Your task to perform on an android device: Search for "bose quietcomfort 35" on ebay, select the first entry, add it to the cart, then select checkout. Image 0: 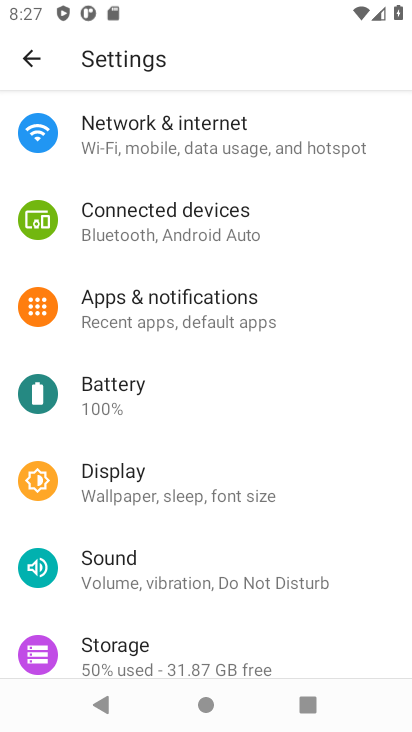
Step 0: press home button
Your task to perform on an android device: Search for "bose quietcomfort 35" on ebay, select the first entry, add it to the cart, then select checkout. Image 1: 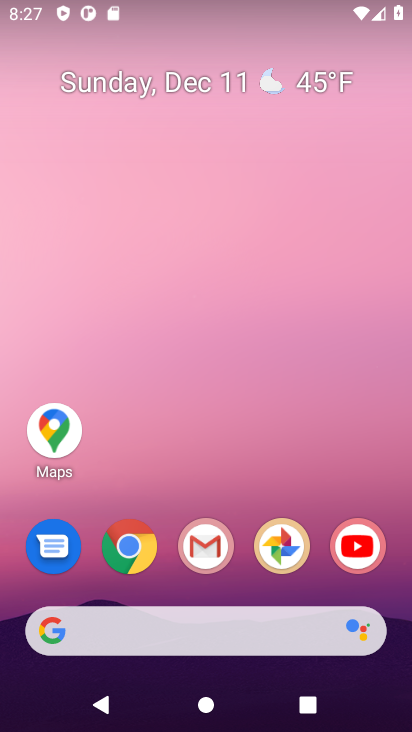
Step 1: click (134, 547)
Your task to perform on an android device: Search for "bose quietcomfort 35" on ebay, select the first entry, add it to the cart, then select checkout. Image 2: 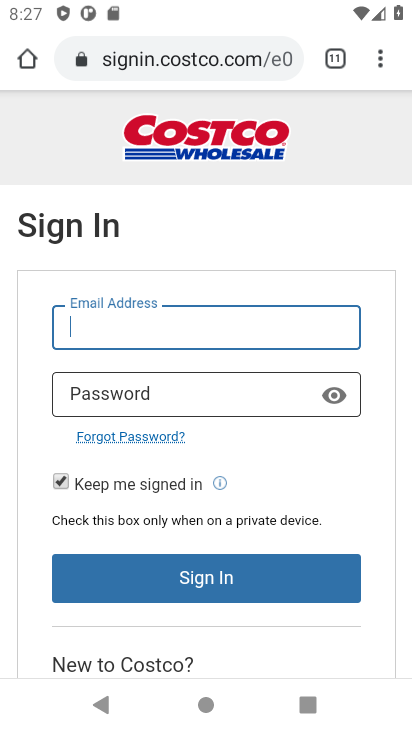
Step 2: click (143, 68)
Your task to perform on an android device: Search for "bose quietcomfort 35" on ebay, select the first entry, add it to the cart, then select checkout. Image 3: 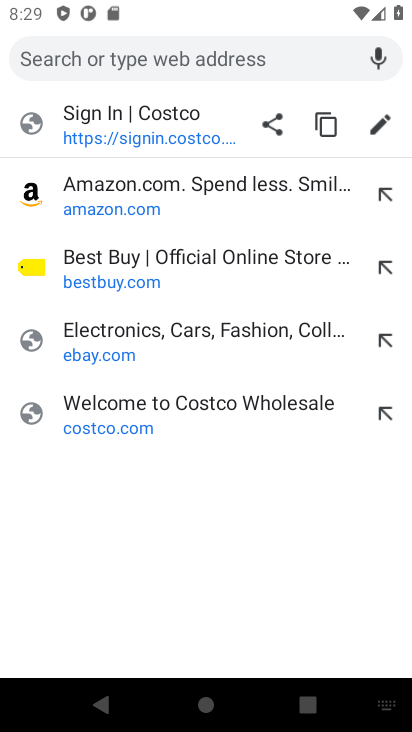
Step 3: click (83, 347)
Your task to perform on an android device: Search for "bose quietcomfort 35" on ebay, select the first entry, add it to the cart, then select checkout. Image 4: 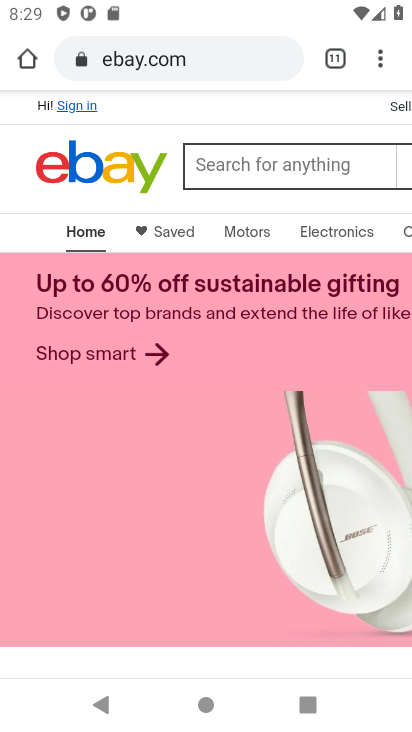
Step 4: click (234, 172)
Your task to perform on an android device: Search for "bose quietcomfort 35" on ebay, select the first entry, add it to the cart, then select checkout. Image 5: 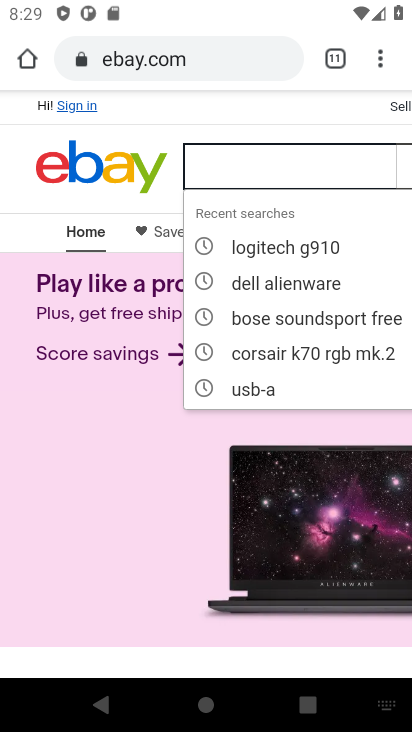
Step 5: type "bose quietcomfort 35"
Your task to perform on an android device: Search for "bose quietcomfort 35" on ebay, select the first entry, add it to the cart, then select checkout. Image 6: 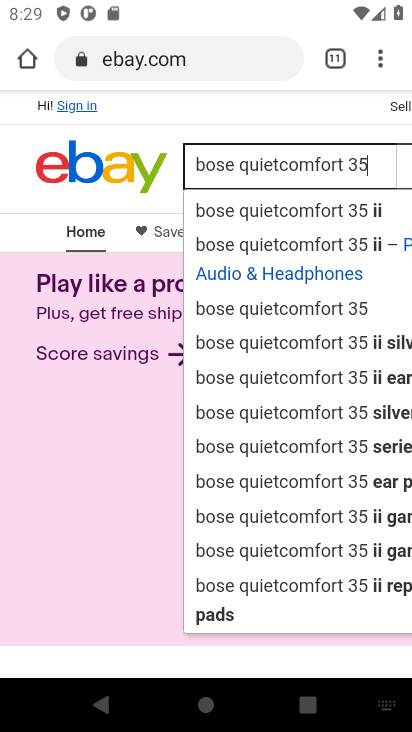
Step 6: click (336, 214)
Your task to perform on an android device: Search for "bose quietcomfort 35" on ebay, select the first entry, add it to the cart, then select checkout. Image 7: 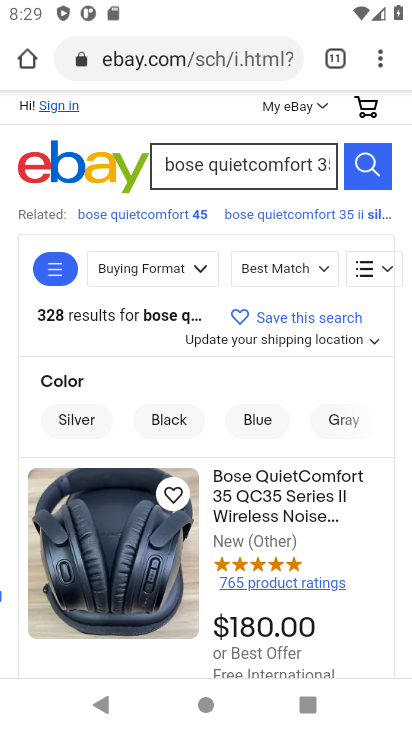
Step 7: click (279, 514)
Your task to perform on an android device: Search for "bose quietcomfort 35" on ebay, select the first entry, add it to the cart, then select checkout. Image 8: 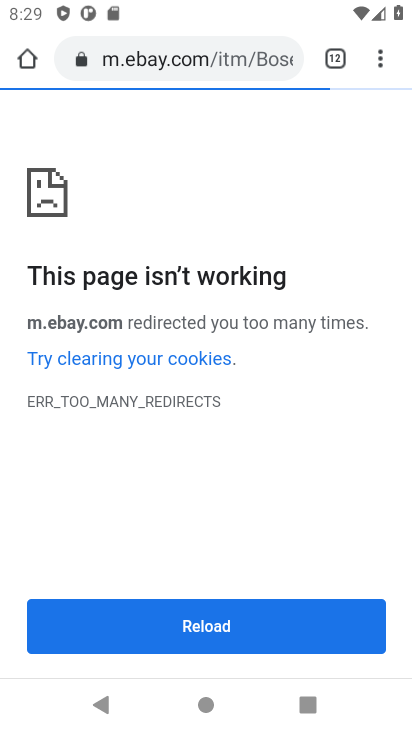
Step 8: task complete